Your task to perform on an android device: turn off translation in the chrome app Image 0: 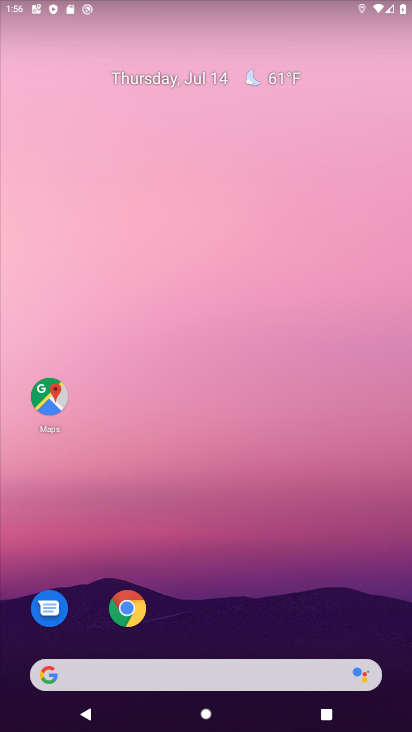
Step 0: click (129, 610)
Your task to perform on an android device: turn off translation in the chrome app Image 1: 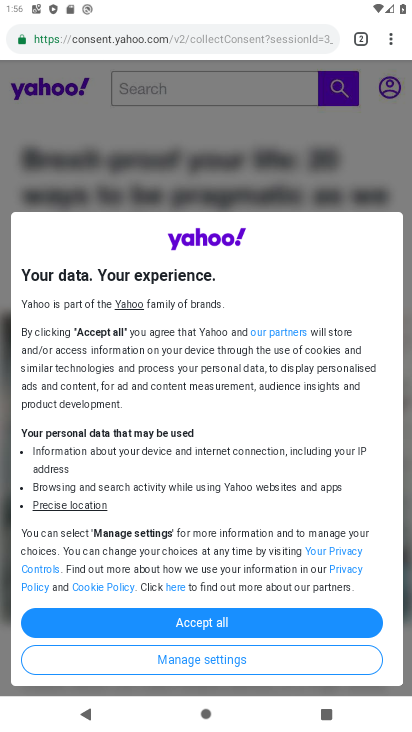
Step 1: click (392, 39)
Your task to perform on an android device: turn off translation in the chrome app Image 2: 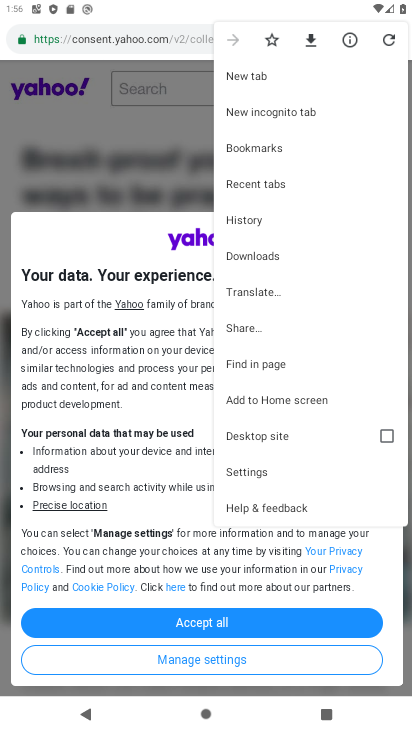
Step 2: click (255, 474)
Your task to perform on an android device: turn off translation in the chrome app Image 3: 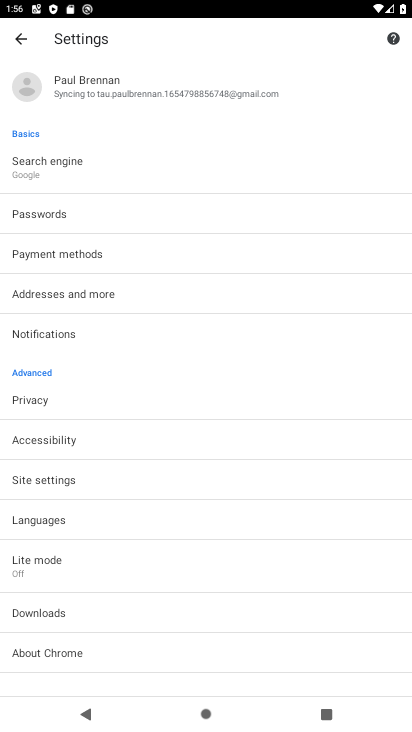
Step 3: click (60, 520)
Your task to perform on an android device: turn off translation in the chrome app Image 4: 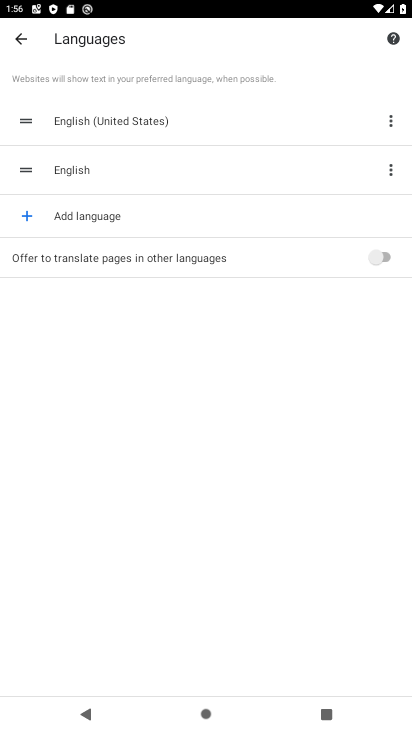
Step 4: task complete